Your task to perform on an android device: Open CNN.com Image 0: 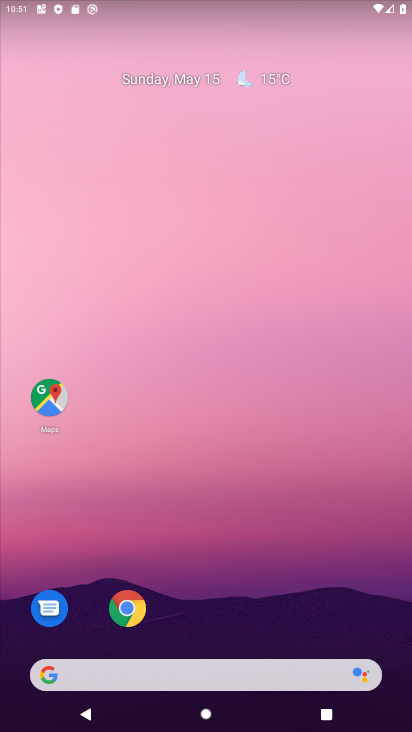
Step 0: click (122, 618)
Your task to perform on an android device: Open CNN.com Image 1: 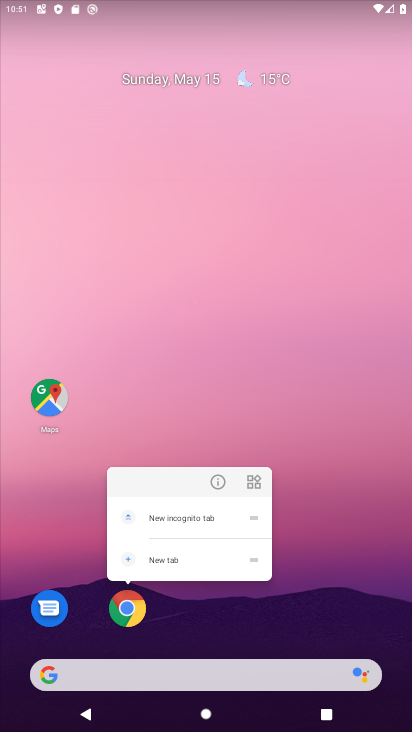
Step 1: click (122, 614)
Your task to perform on an android device: Open CNN.com Image 2: 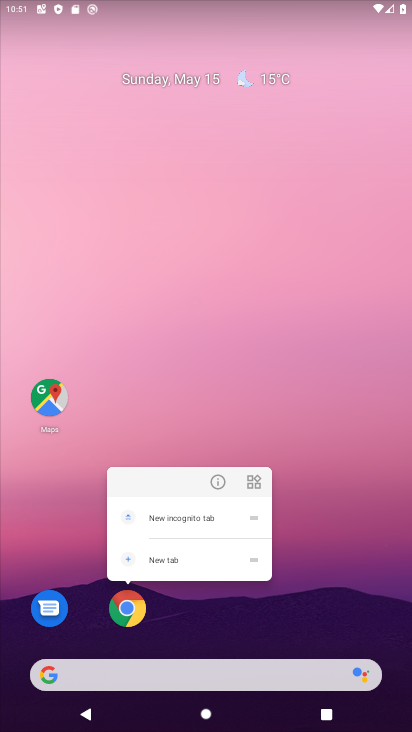
Step 2: click (126, 614)
Your task to perform on an android device: Open CNN.com Image 3: 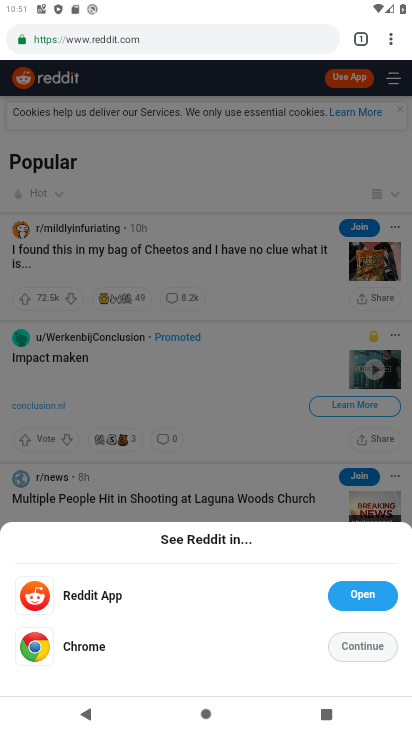
Step 3: click (367, 651)
Your task to perform on an android device: Open CNN.com Image 4: 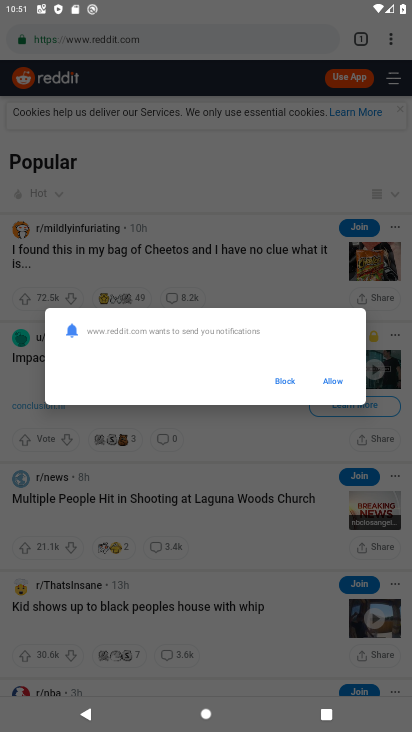
Step 4: click (290, 383)
Your task to perform on an android device: Open CNN.com Image 5: 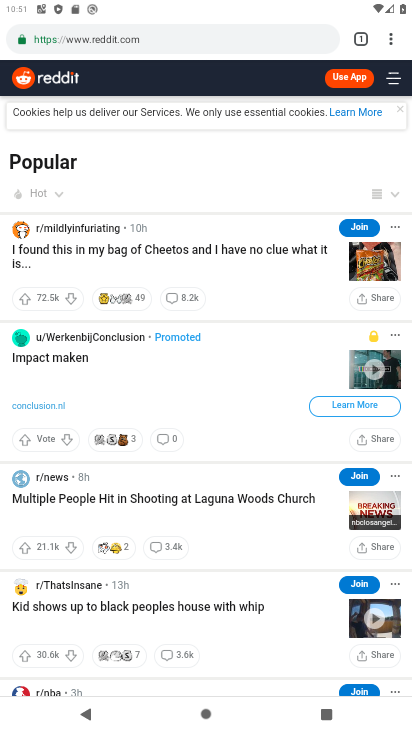
Step 5: press back button
Your task to perform on an android device: Open CNN.com Image 6: 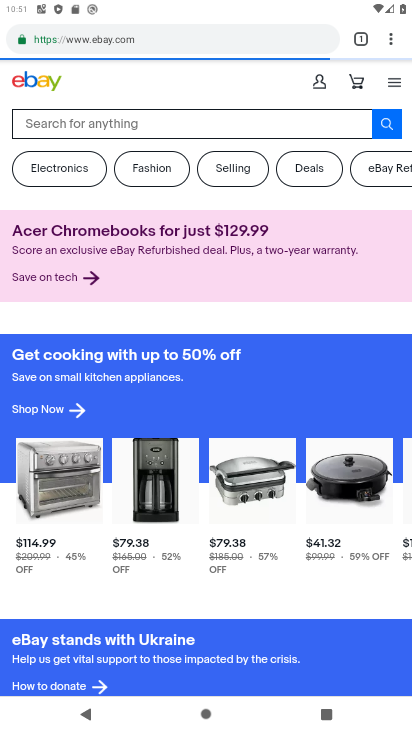
Step 6: press back button
Your task to perform on an android device: Open CNN.com Image 7: 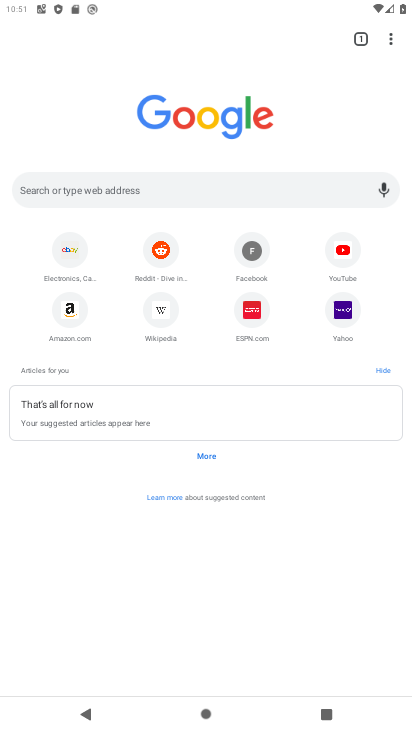
Step 7: click (176, 195)
Your task to perform on an android device: Open CNN.com Image 8: 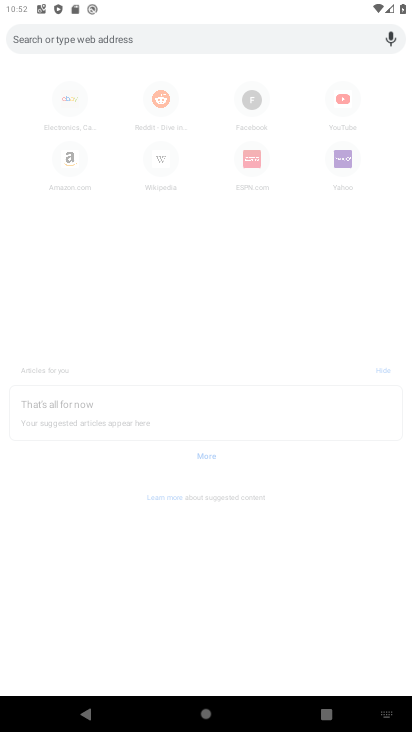
Step 8: type "www.cnn.com"
Your task to perform on an android device: Open CNN.com Image 9: 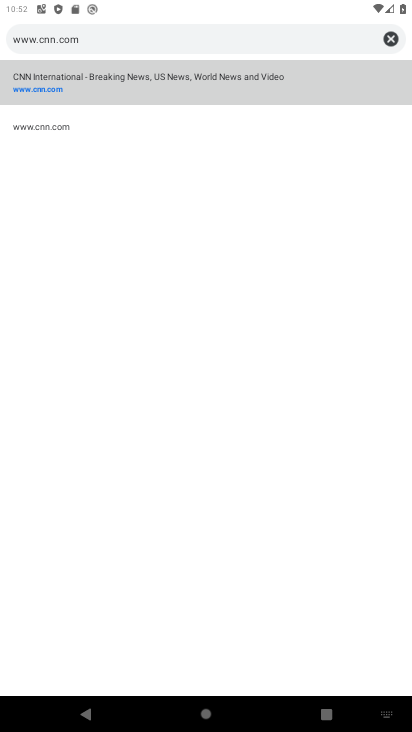
Step 9: click (56, 88)
Your task to perform on an android device: Open CNN.com Image 10: 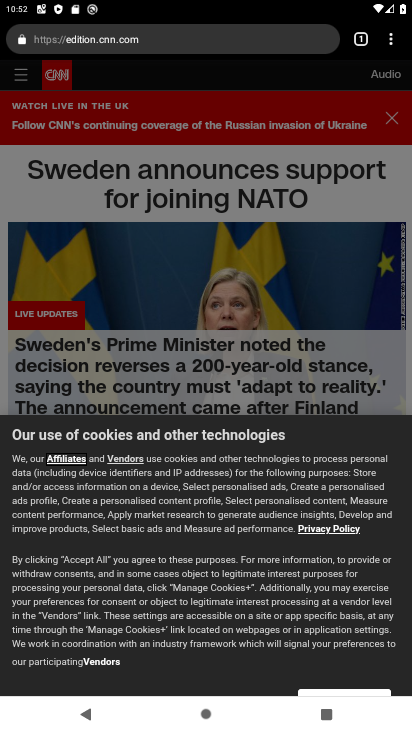
Step 10: task complete